Your task to perform on an android device: Clear the cart on walmart.com. Add "logitech g502" to the cart on walmart.com Image 0: 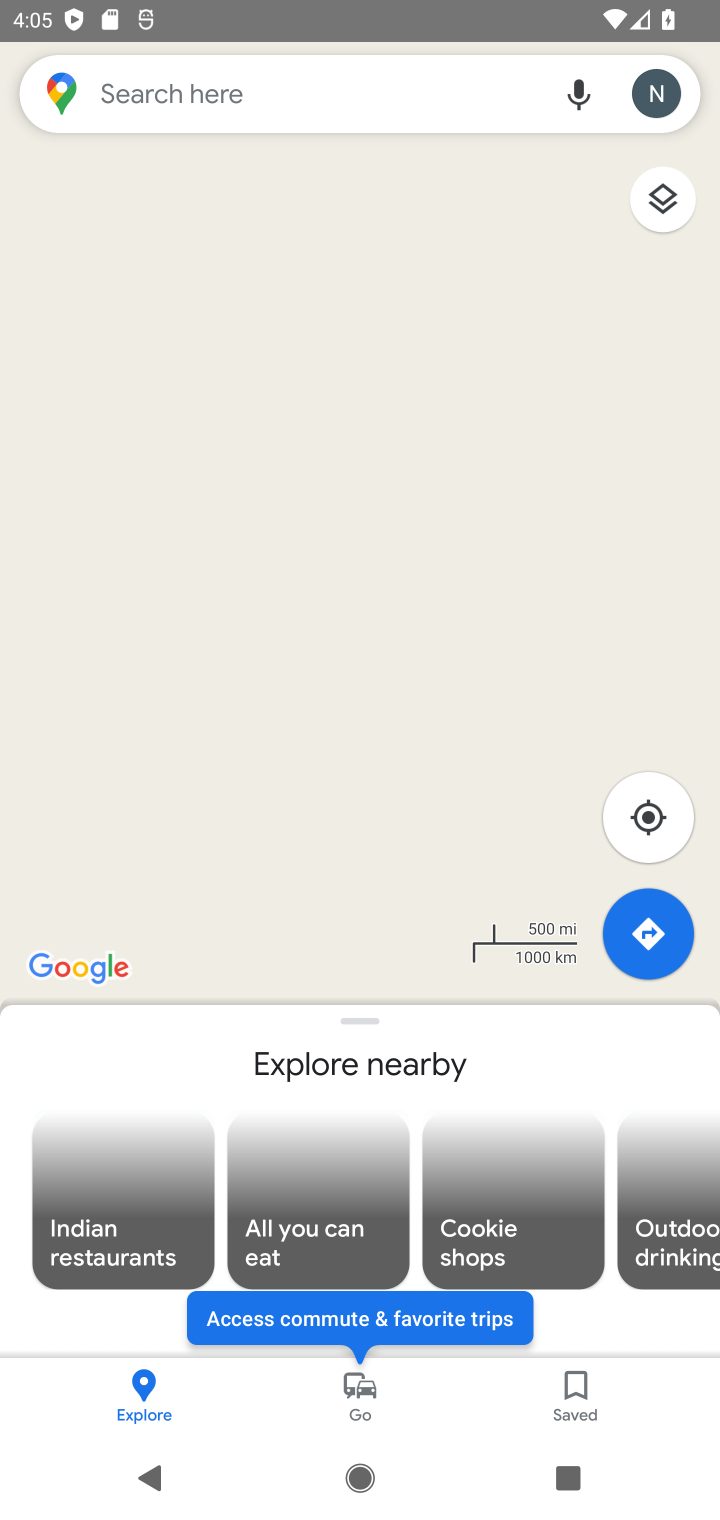
Step 0: press home button
Your task to perform on an android device: Clear the cart on walmart.com. Add "logitech g502" to the cart on walmart.com Image 1: 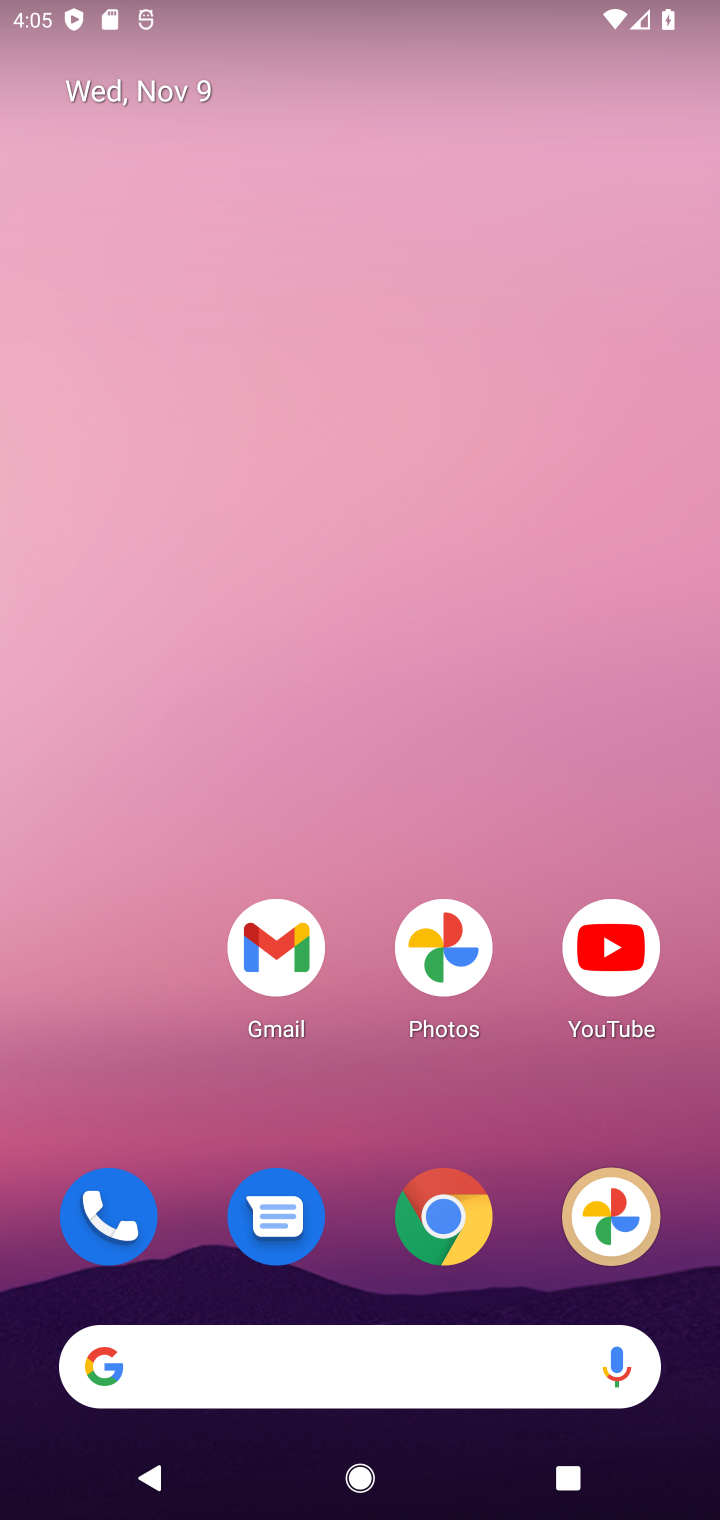
Step 1: drag from (350, 942) to (308, 97)
Your task to perform on an android device: Clear the cart on walmart.com. Add "logitech g502" to the cart on walmart.com Image 2: 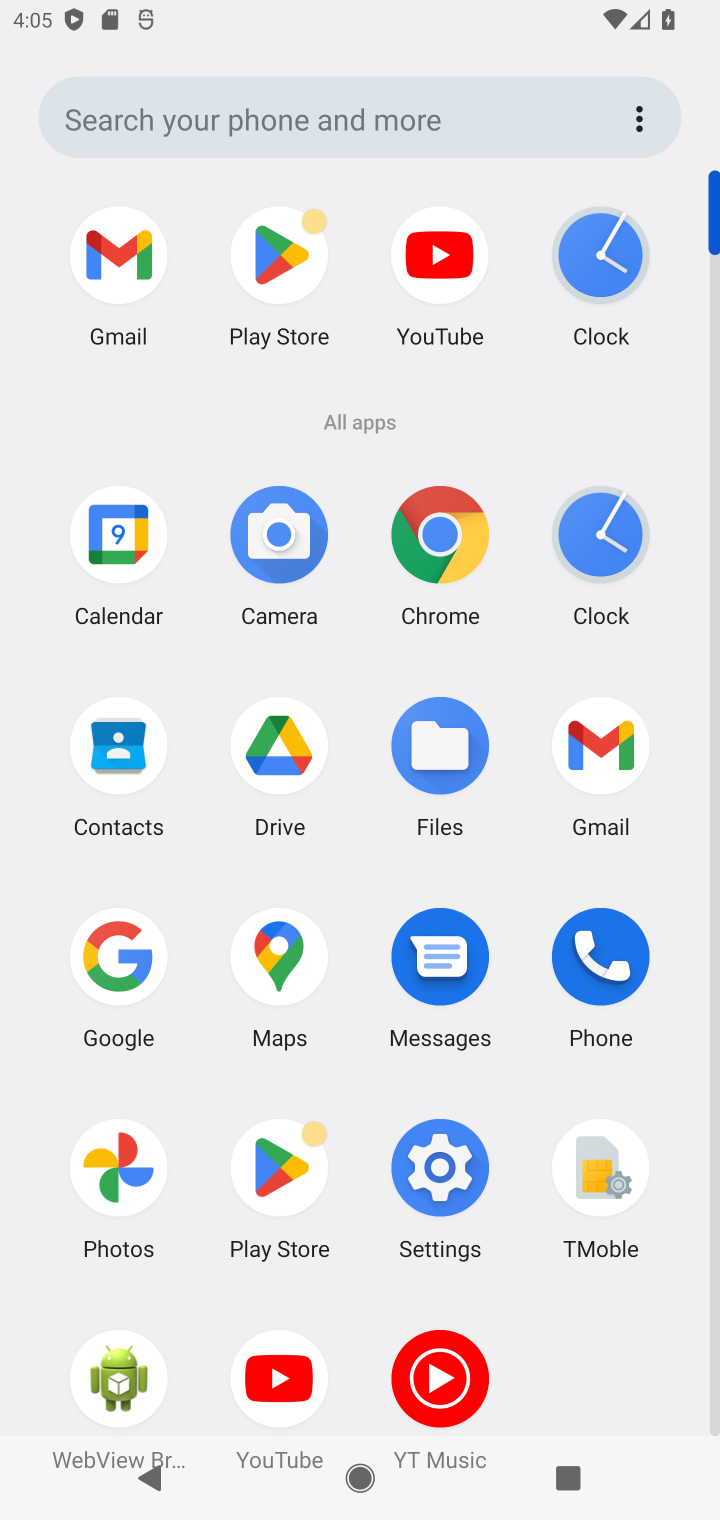
Step 2: click (440, 535)
Your task to perform on an android device: Clear the cart on walmart.com. Add "logitech g502" to the cart on walmart.com Image 3: 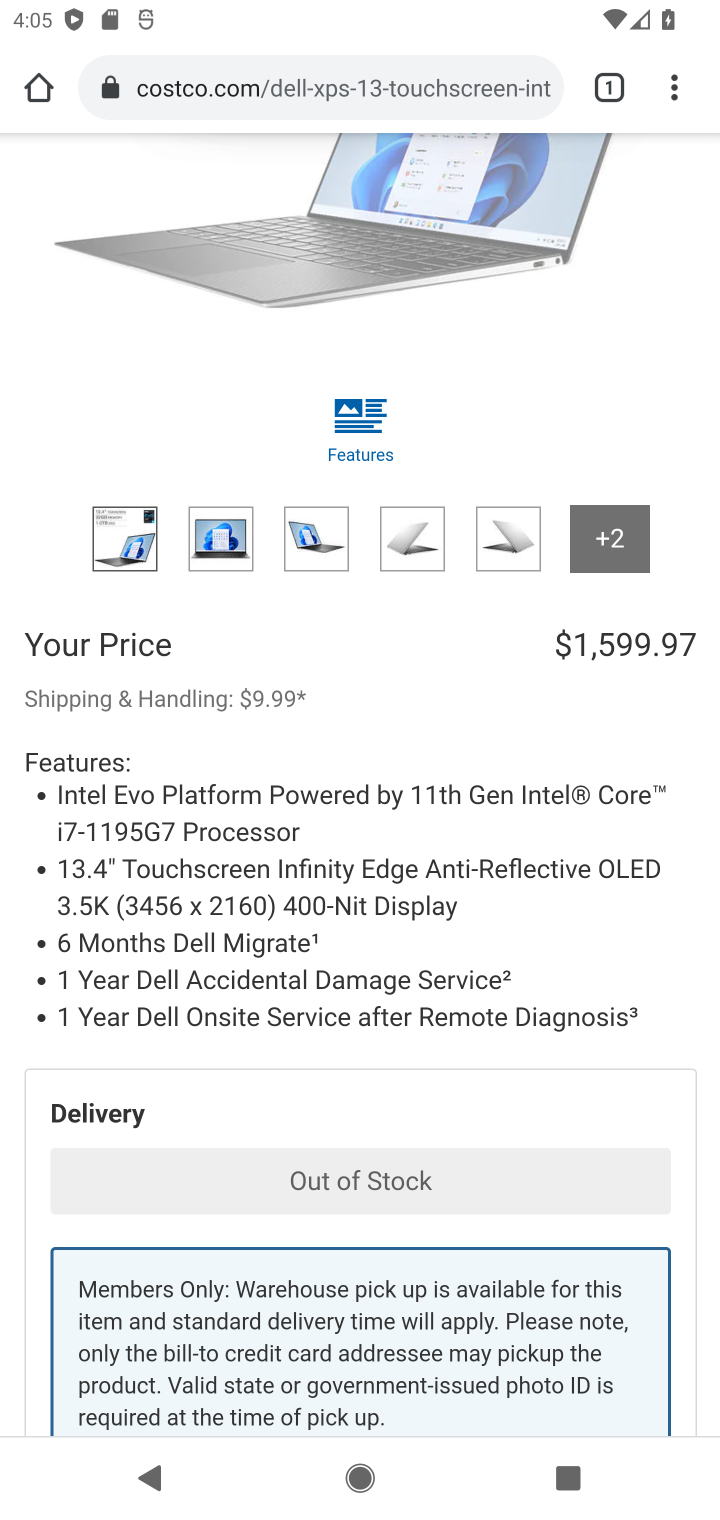
Step 3: click (401, 105)
Your task to perform on an android device: Clear the cart on walmart.com. Add "logitech g502" to the cart on walmart.com Image 4: 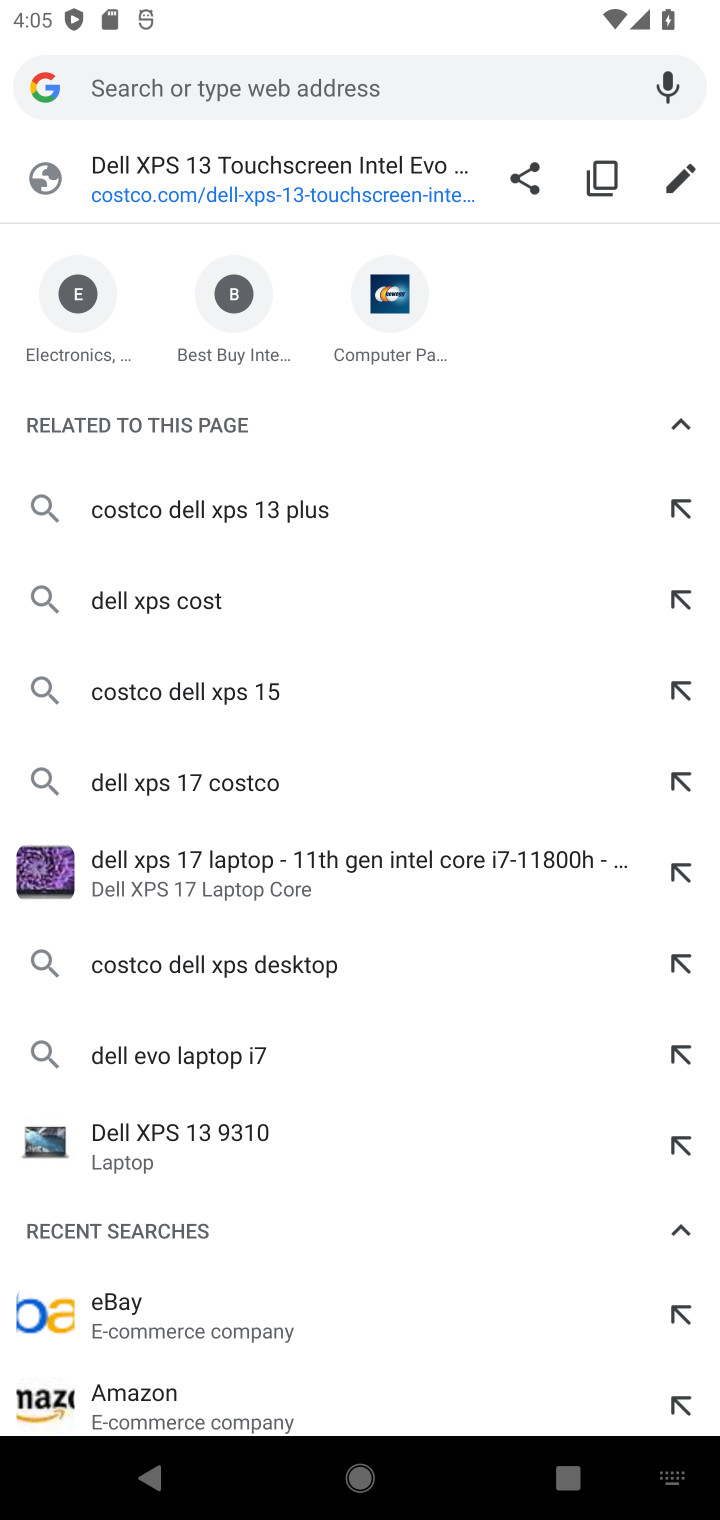
Step 4: type "walmart.com"
Your task to perform on an android device: Clear the cart on walmart.com. Add "logitech g502" to the cart on walmart.com Image 5: 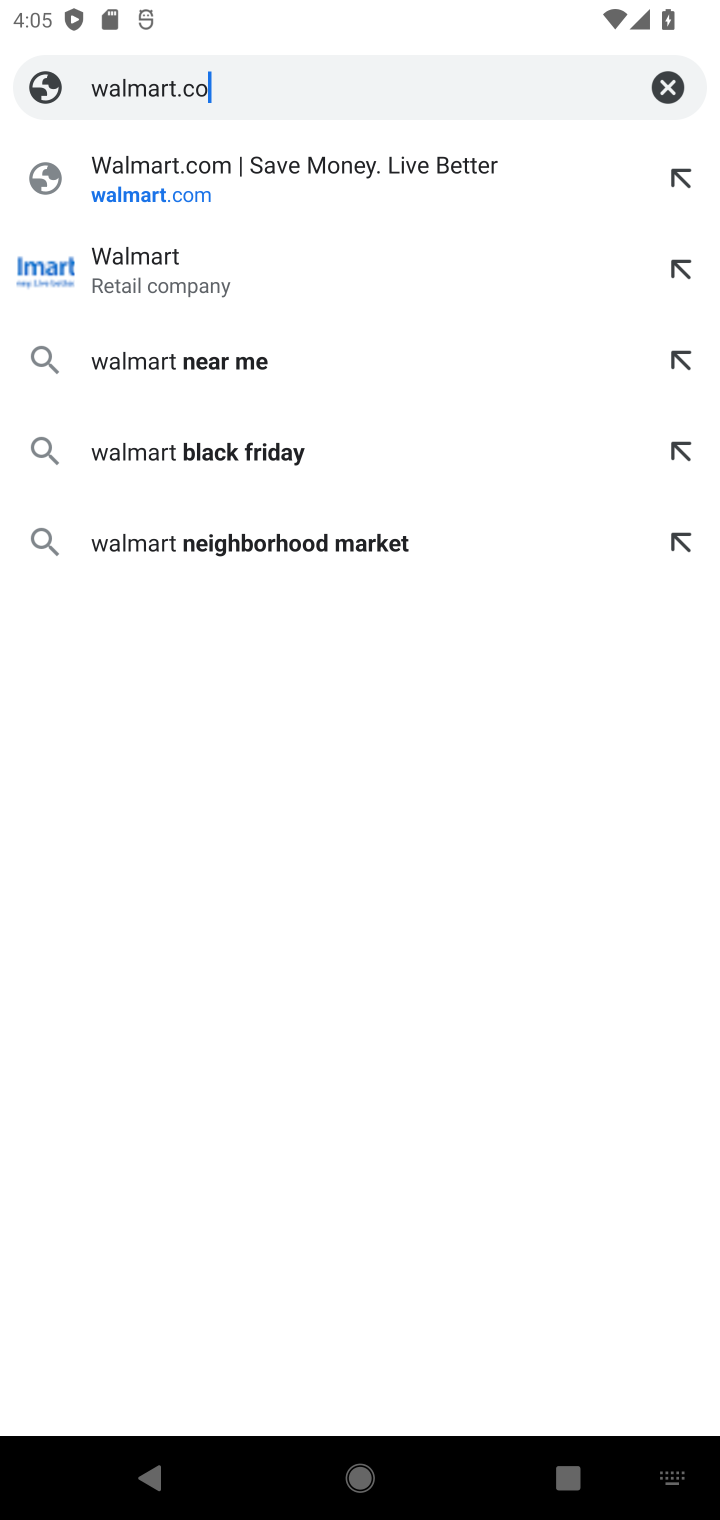
Step 5: press enter
Your task to perform on an android device: Clear the cart on walmart.com. Add "logitech g502" to the cart on walmart.com Image 6: 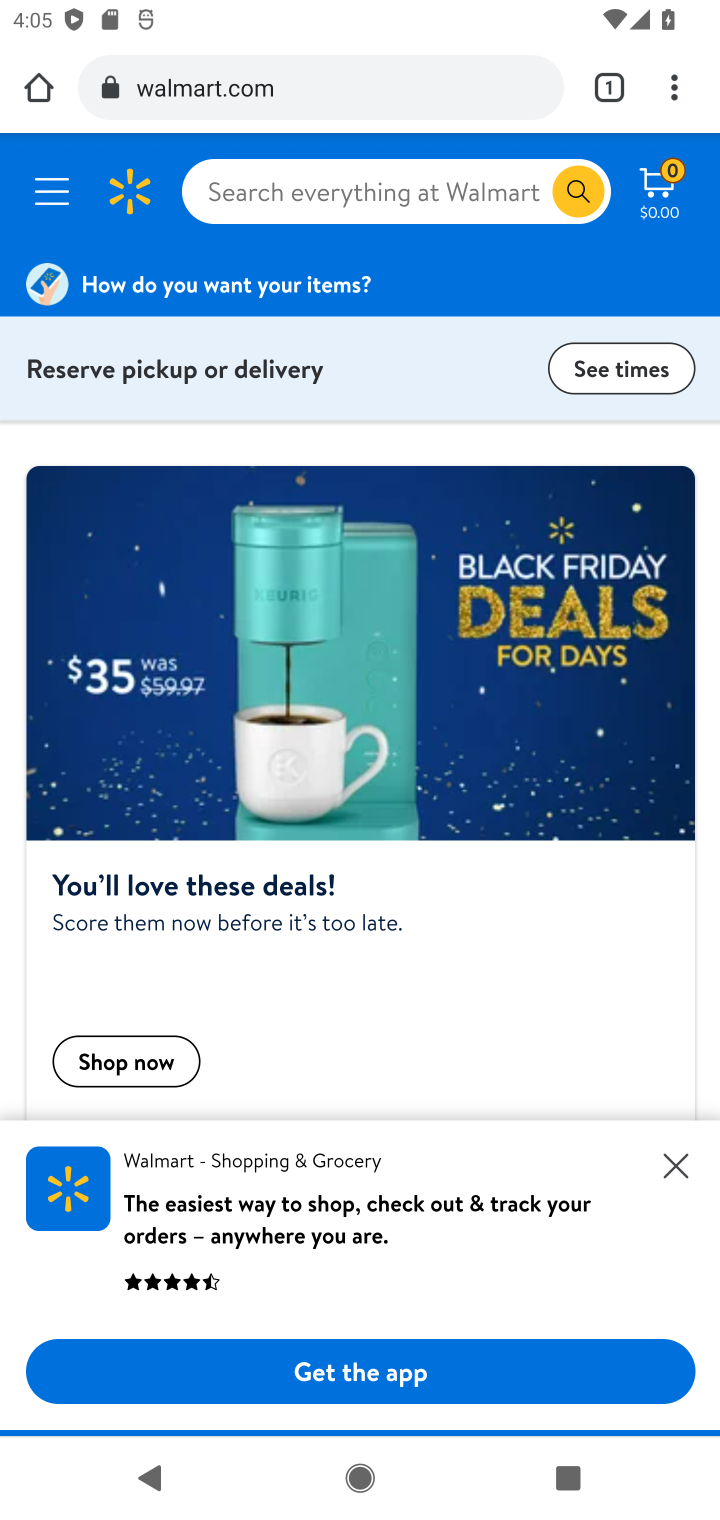
Step 6: click (664, 186)
Your task to perform on an android device: Clear the cart on walmart.com. Add "logitech g502" to the cart on walmart.com Image 7: 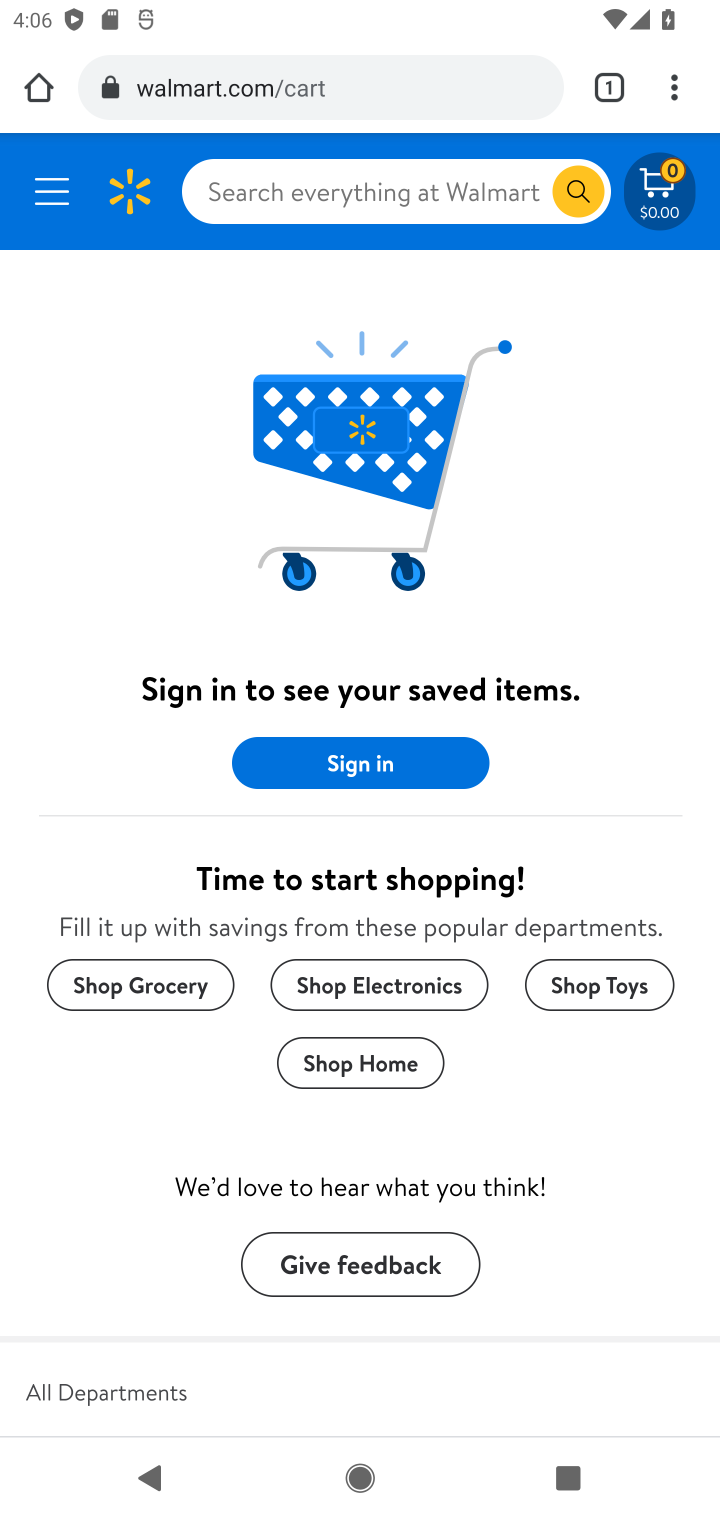
Step 7: click (371, 183)
Your task to perform on an android device: Clear the cart on walmart.com. Add "logitech g502" to the cart on walmart.com Image 8: 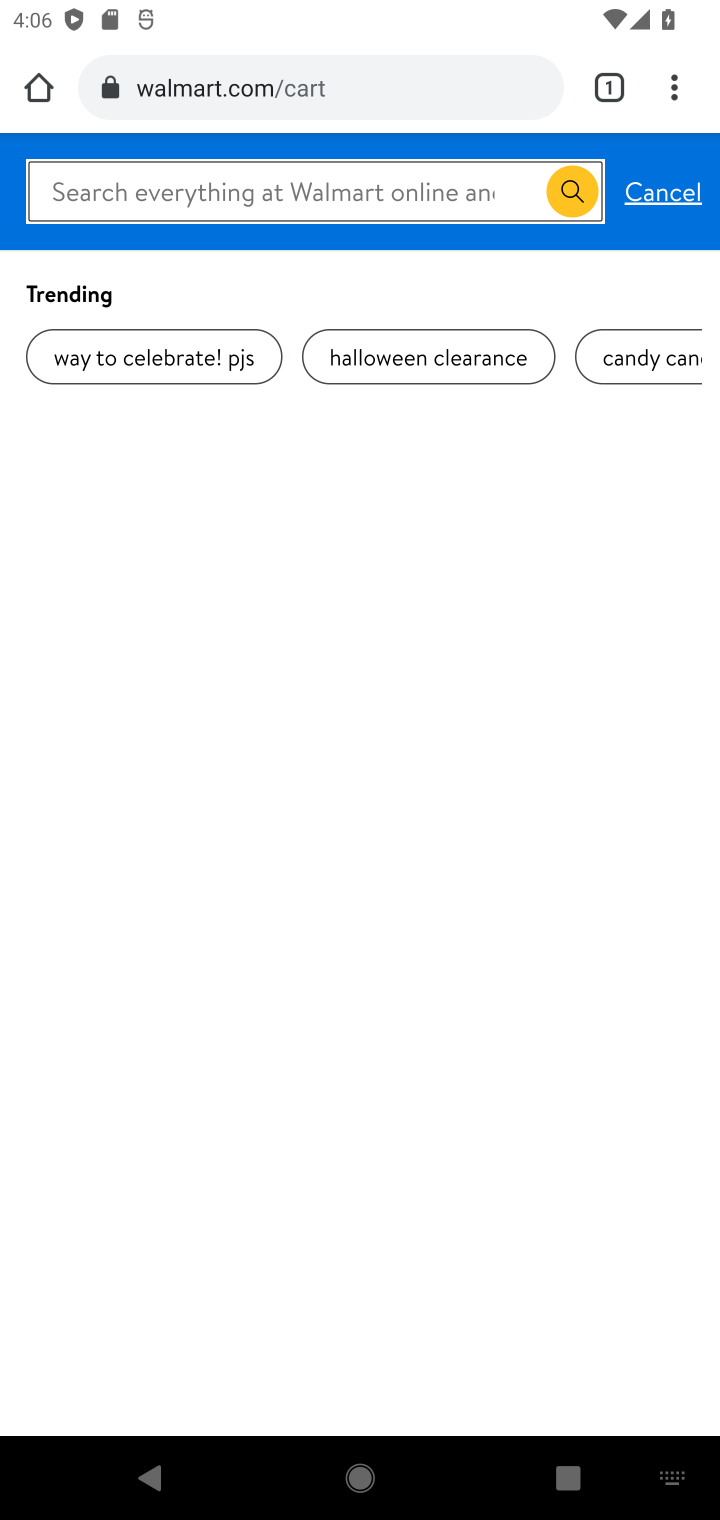
Step 8: type "logitech g502"
Your task to perform on an android device: Clear the cart on walmart.com. Add "logitech g502" to the cart on walmart.com Image 9: 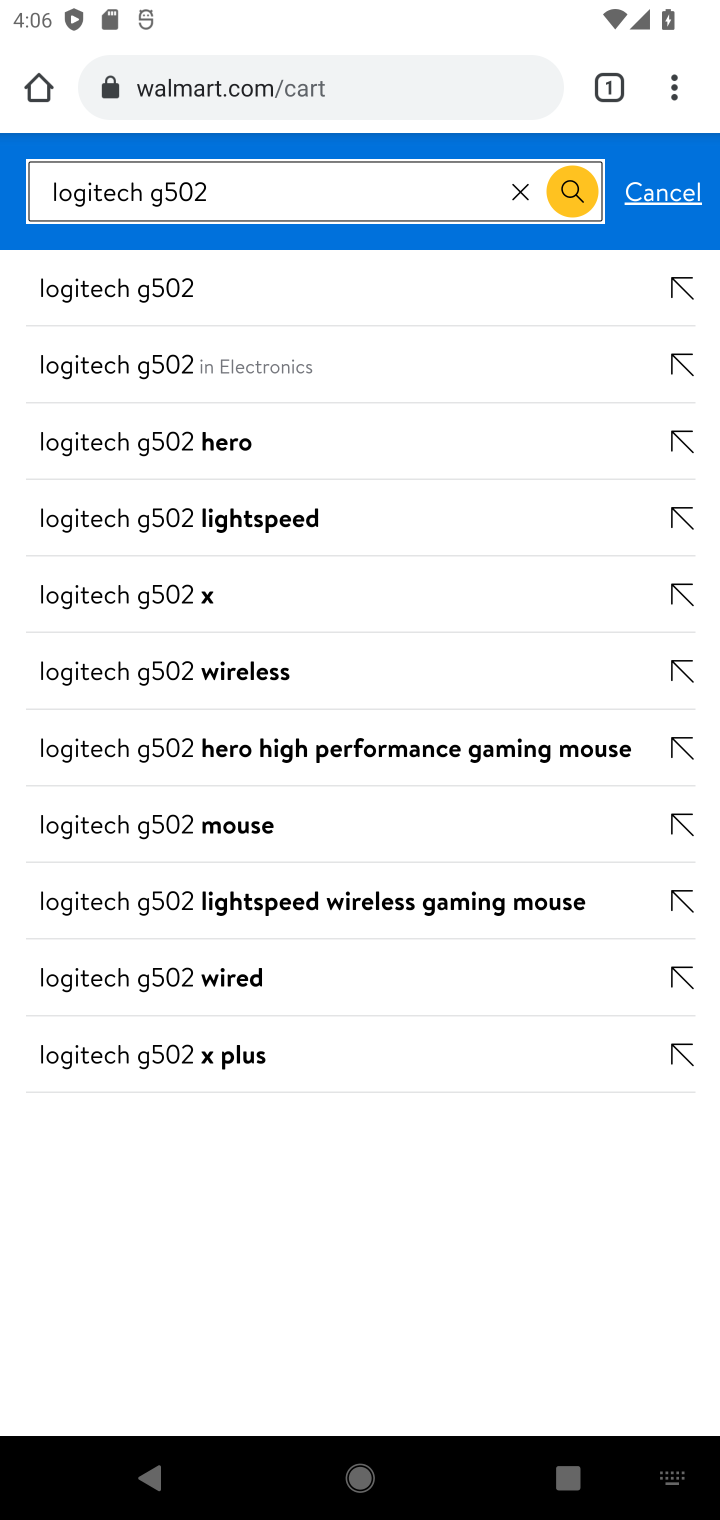
Step 9: press enter
Your task to perform on an android device: Clear the cart on walmart.com. Add "logitech g502" to the cart on walmart.com Image 10: 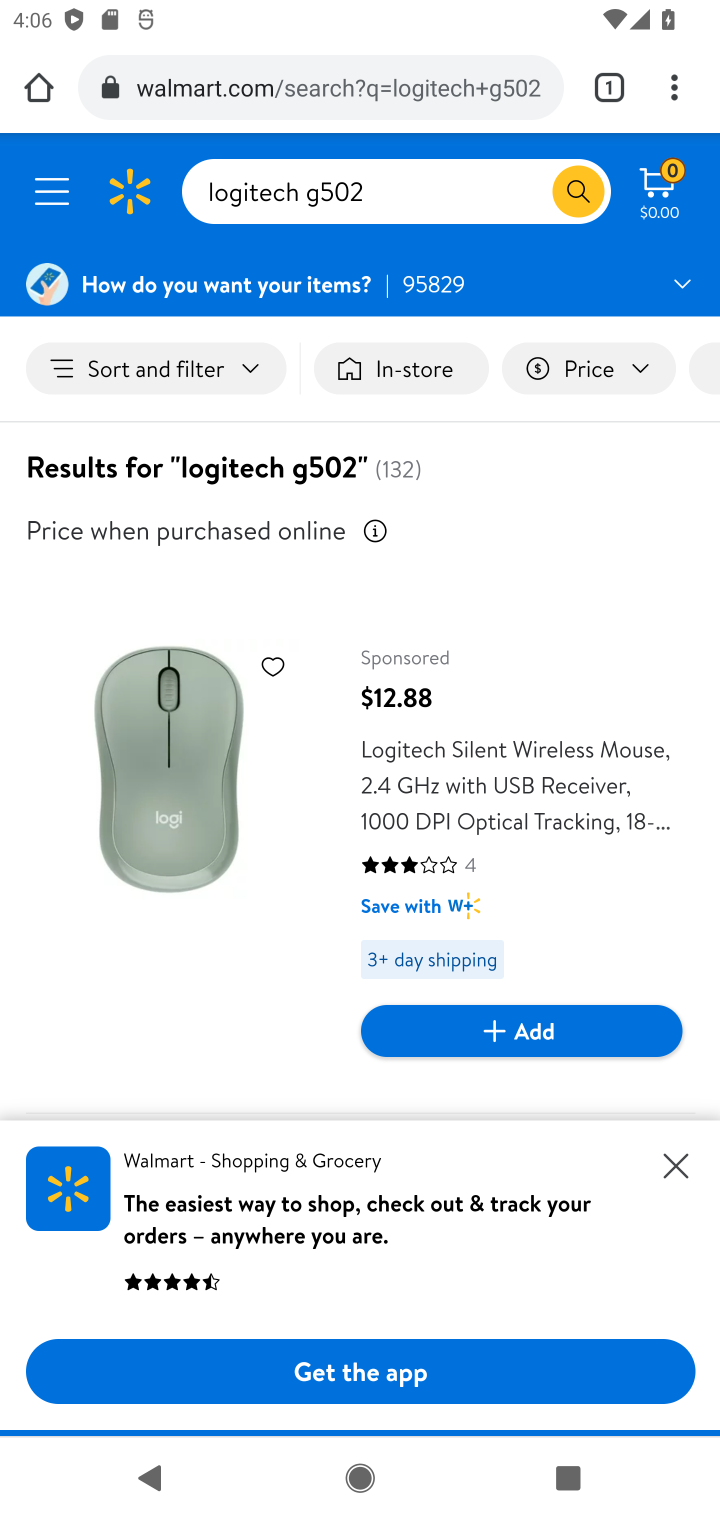
Step 10: drag from (482, 872) to (528, 217)
Your task to perform on an android device: Clear the cart on walmart.com. Add "logitech g502" to the cart on walmart.com Image 11: 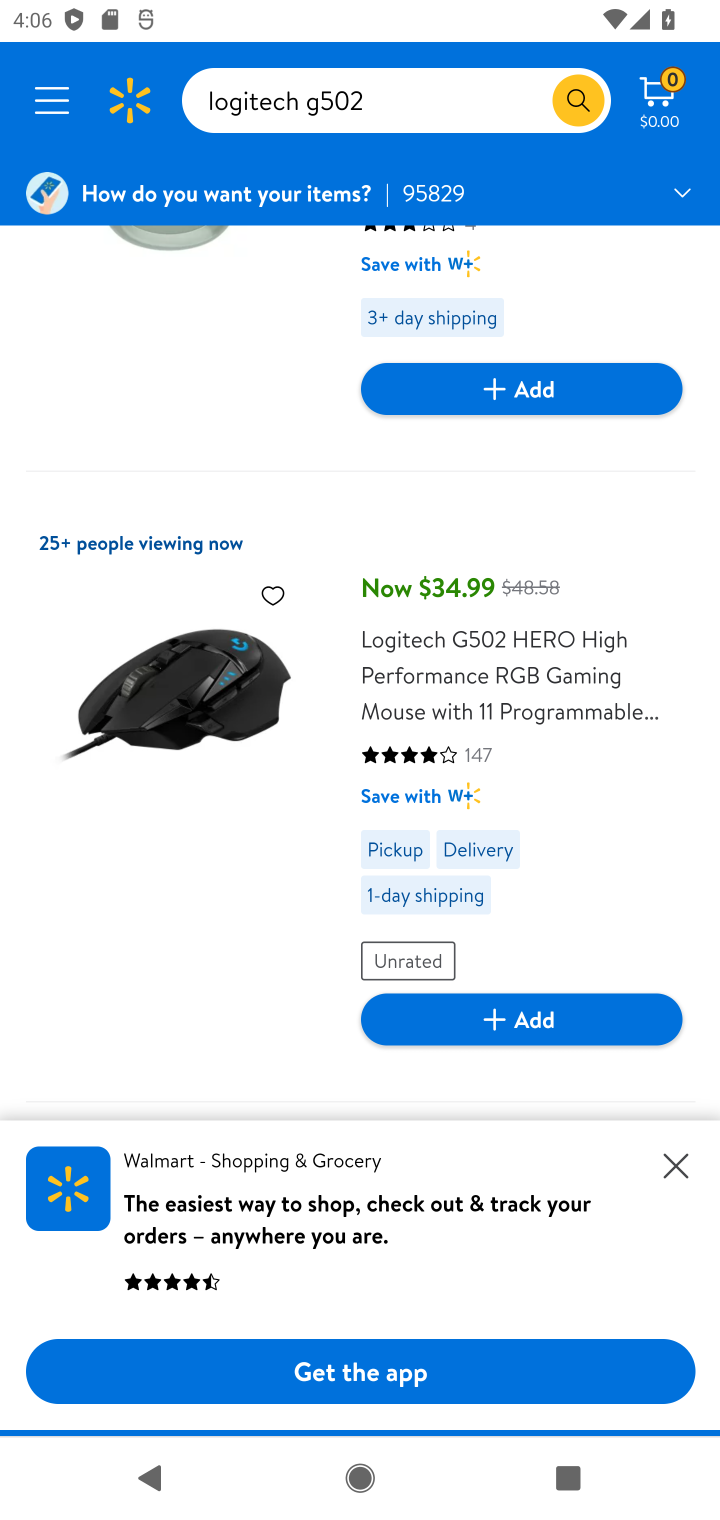
Step 11: click (544, 1014)
Your task to perform on an android device: Clear the cart on walmart.com. Add "logitech g502" to the cart on walmart.com Image 12: 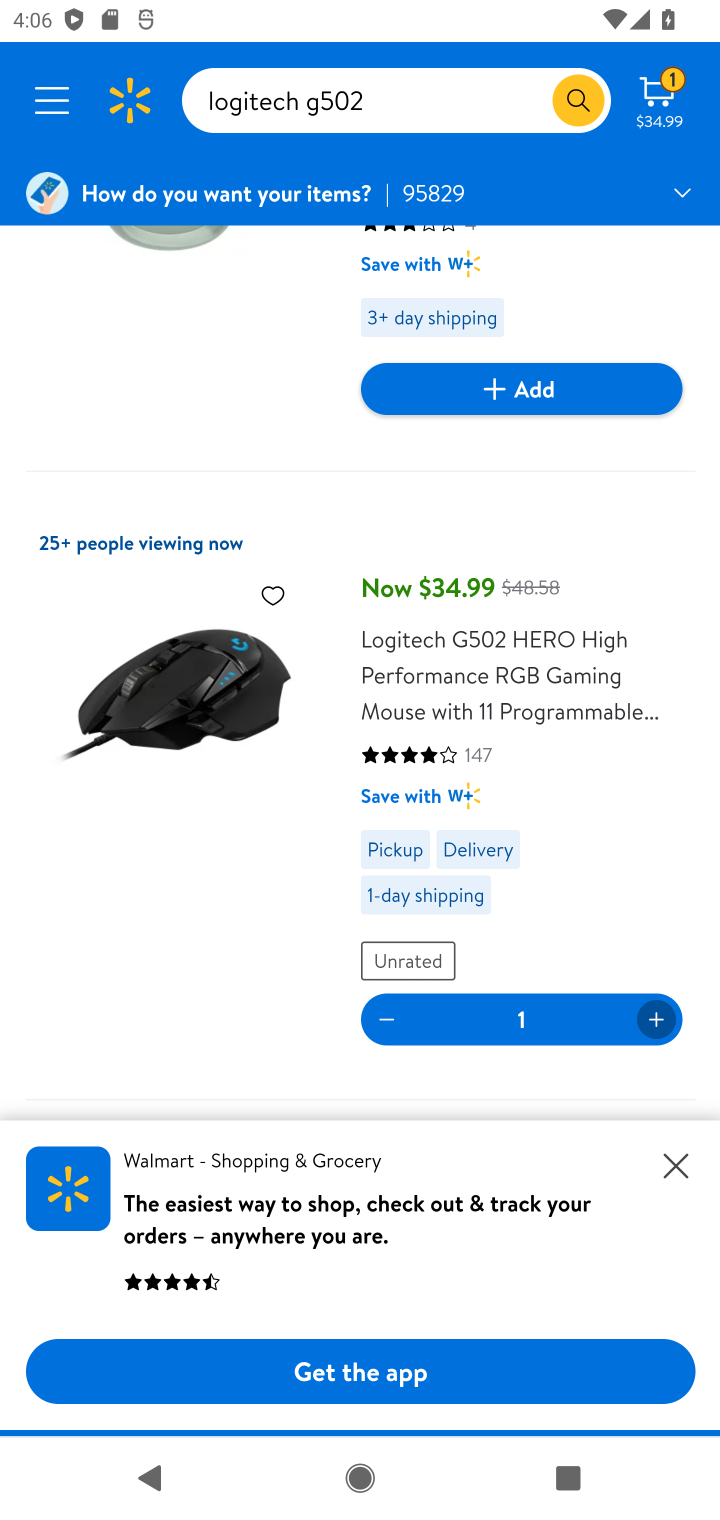
Step 12: task complete